Your task to perform on an android device: open device folders in google photos Image 0: 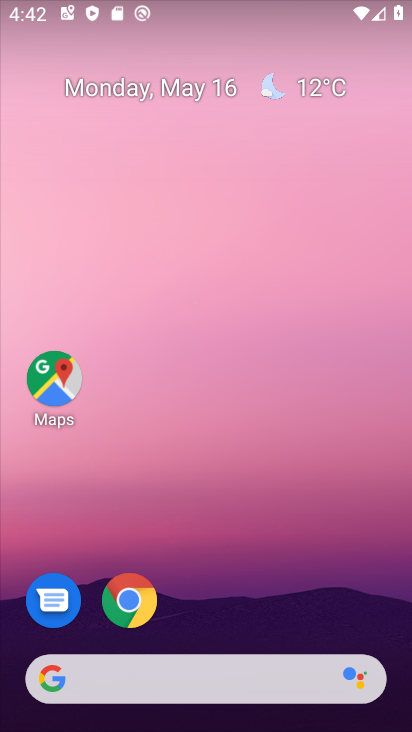
Step 0: drag from (224, 650) to (221, 445)
Your task to perform on an android device: open device folders in google photos Image 1: 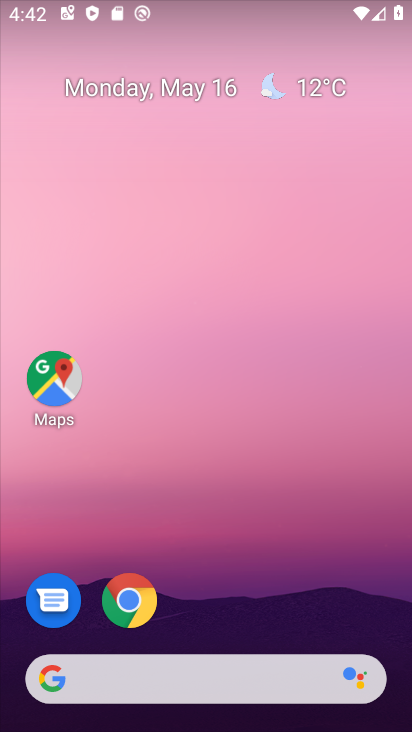
Step 1: drag from (238, 642) to (238, 289)
Your task to perform on an android device: open device folders in google photos Image 2: 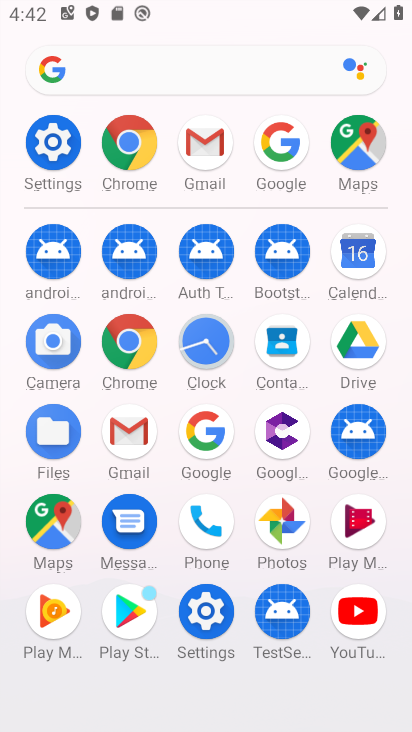
Step 2: click (281, 527)
Your task to perform on an android device: open device folders in google photos Image 3: 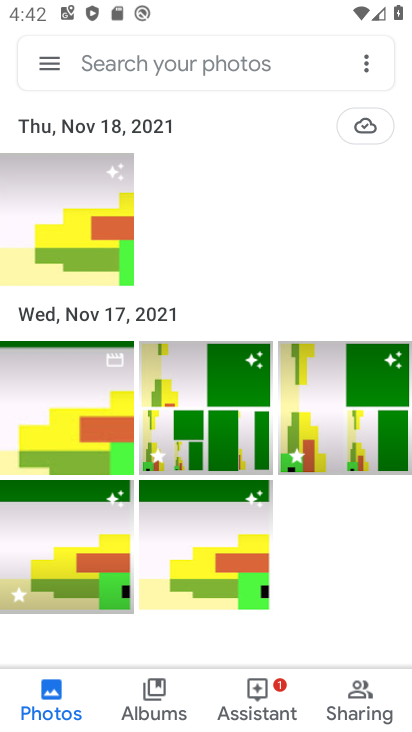
Step 3: click (37, 64)
Your task to perform on an android device: open device folders in google photos Image 4: 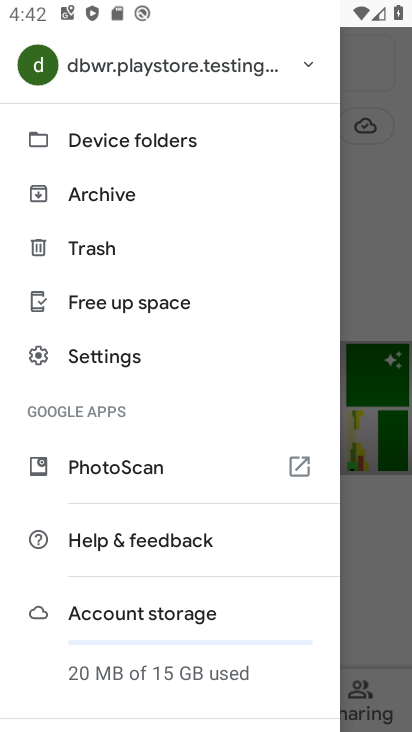
Step 4: click (96, 137)
Your task to perform on an android device: open device folders in google photos Image 5: 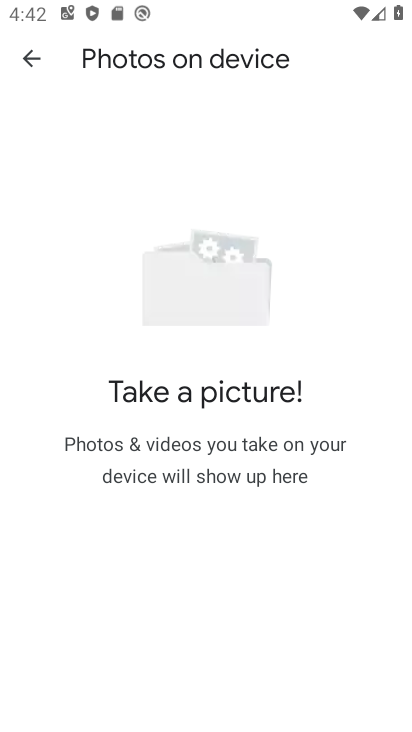
Step 5: task complete